Your task to perform on an android device: Go to battery settings Image 0: 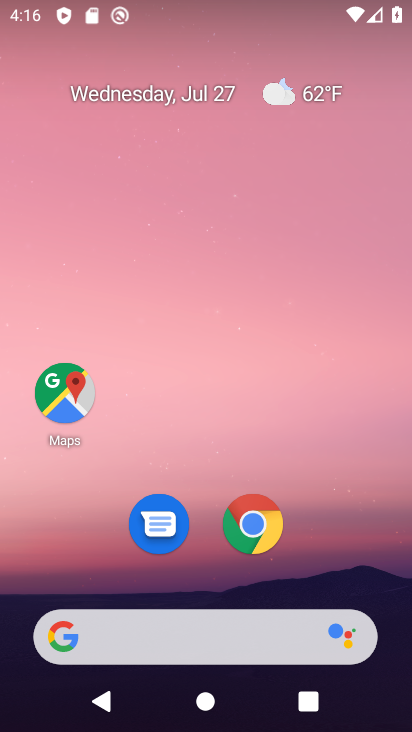
Step 0: drag from (321, 548) to (302, 63)
Your task to perform on an android device: Go to battery settings Image 1: 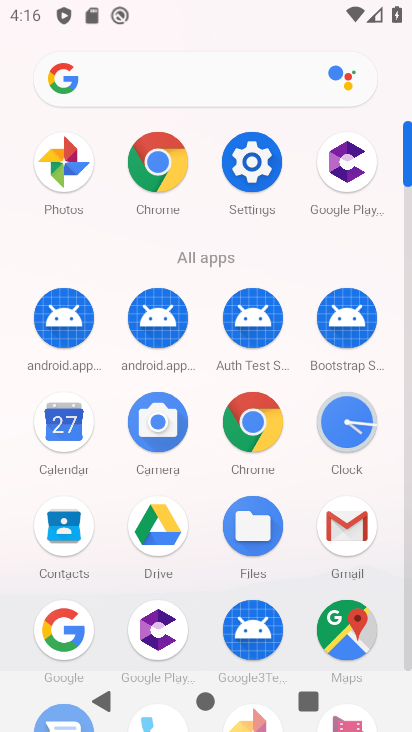
Step 1: click (260, 160)
Your task to perform on an android device: Go to battery settings Image 2: 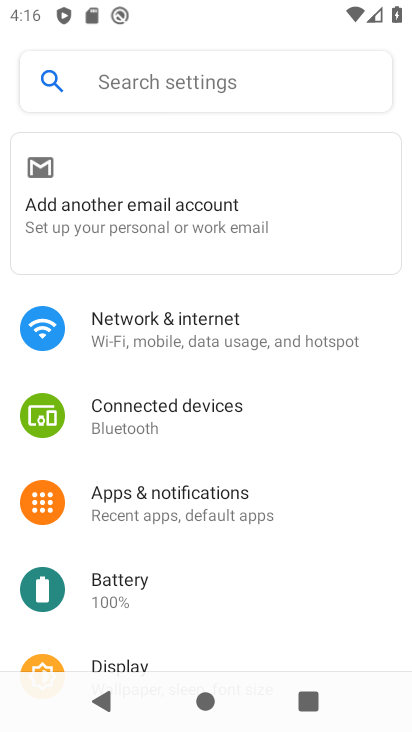
Step 2: click (125, 582)
Your task to perform on an android device: Go to battery settings Image 3: 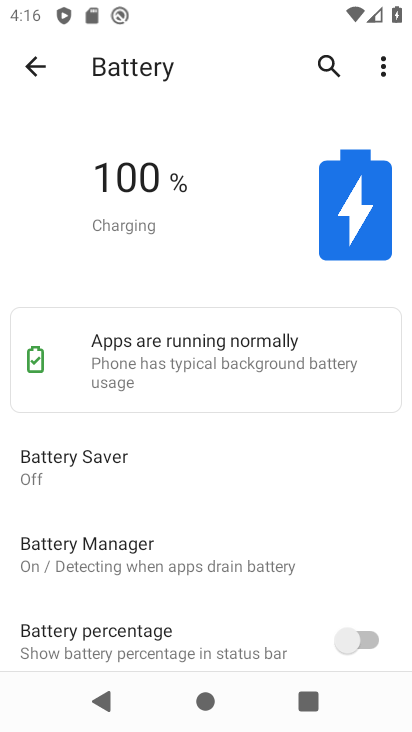
Step 3: task complete